Your task to perform on an android device: turn notification dots on Image 0: 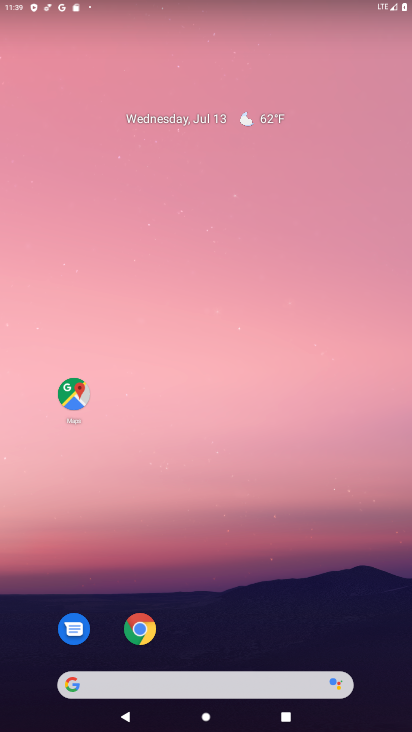
Step 0: drag from (206, 631) to (183, 57)
Your task to perform on an android device: turn notification dots on Image 1: 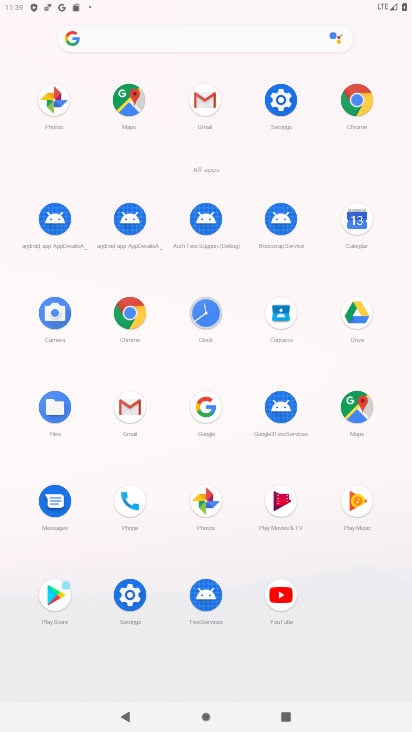
Step 1: click (285, 99)
Your task to perform on an android device: turn notification dots on Image 2: 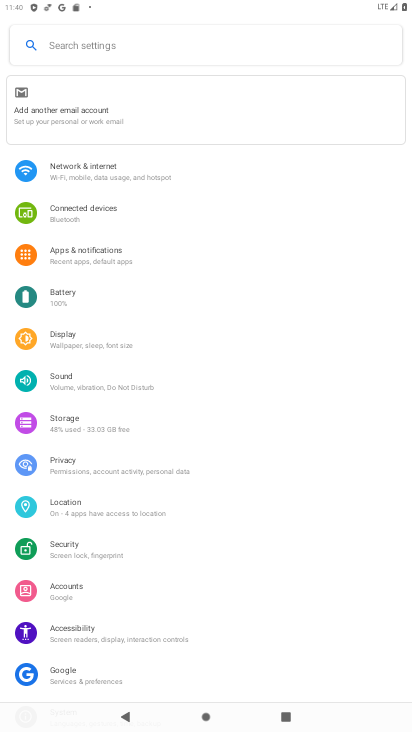
Step 2: click (113, 258)
Your task to perform on an android device: turn notification dots on Image 3: 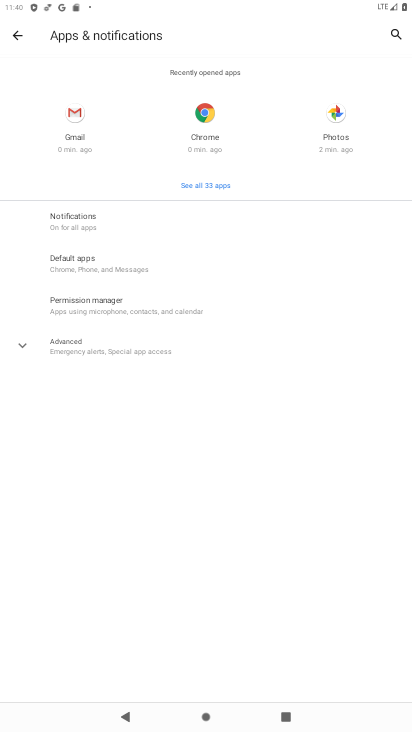
Step 3: click (107, 229)
Your task to perform on an android device: turn notification dots on Image 4: 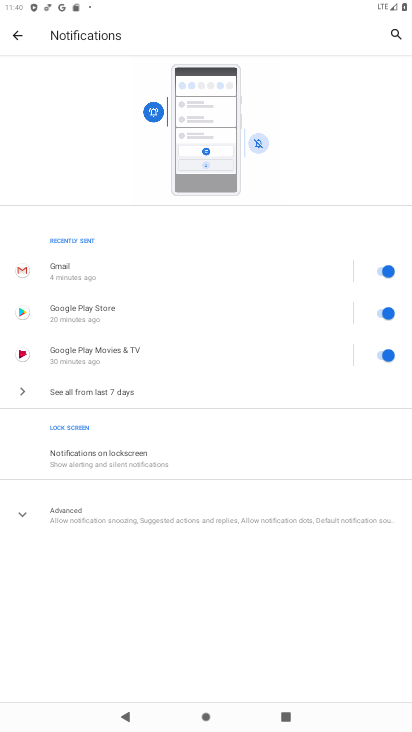
Step 4: click (142, 454)
Your task to perform on an android device: turn notification dots on Image 5: 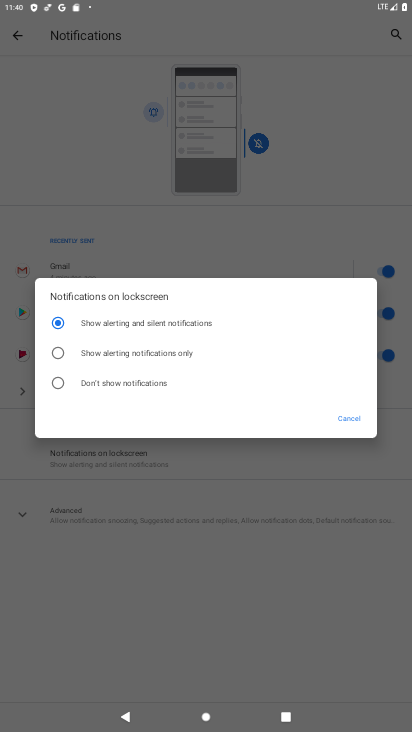
Step 5: click (346, 415)
Your task to perform on an android device: turn notification dots on Image 6: 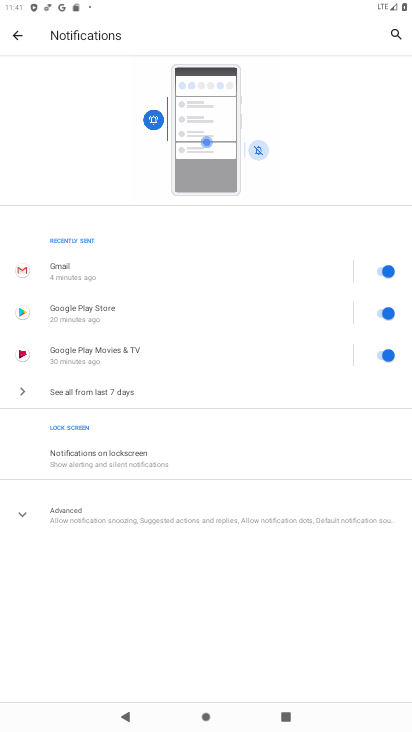
Step 6: click (234, 464)
Your task to perform on an android device: turn notification dots on Image 7: 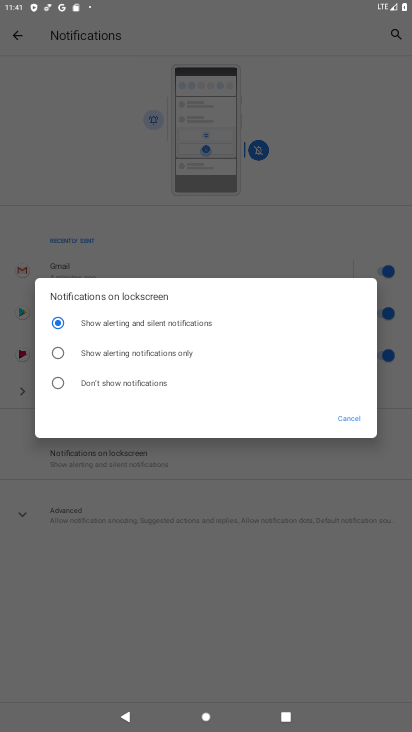
Step 7: click (216, 492)
Your task to perform on an android device: turn notification dots on Image 8: 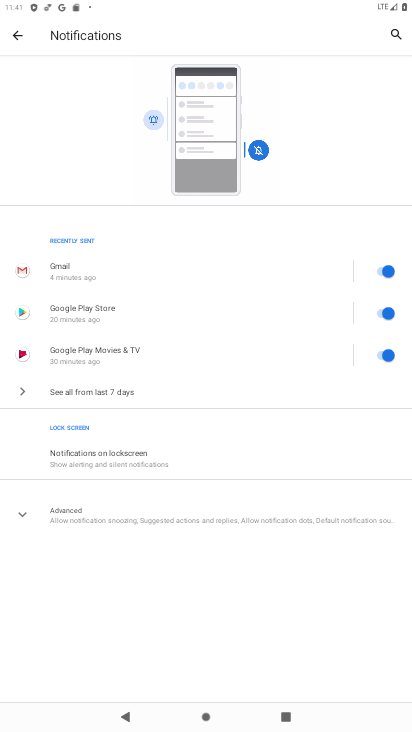
Step 8: click (351, 424)
Your task to perform on an android device: turn notification dots on Image 9: 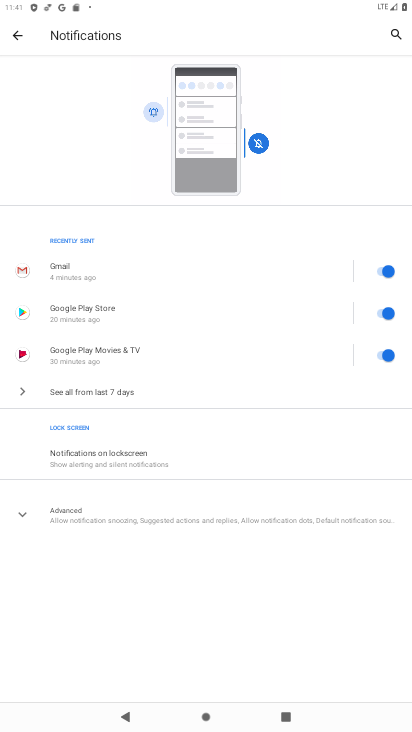
Step 9: click (156, 518)
Your task to perform on an android device: turn notification dots on Image 10: 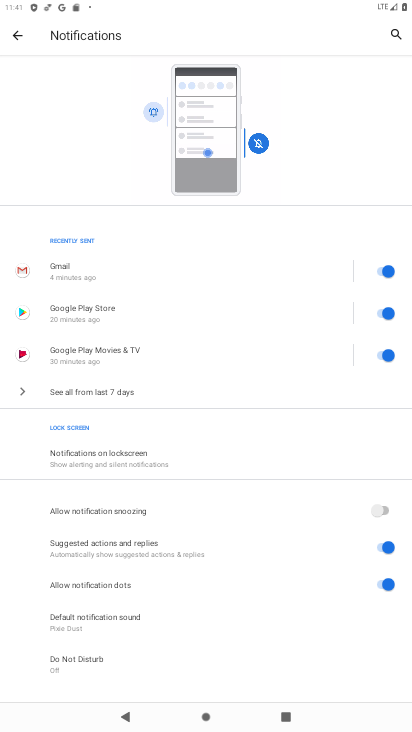
Step 10: task complete